Your task to perform on an android device: open wifi settings Image 0: 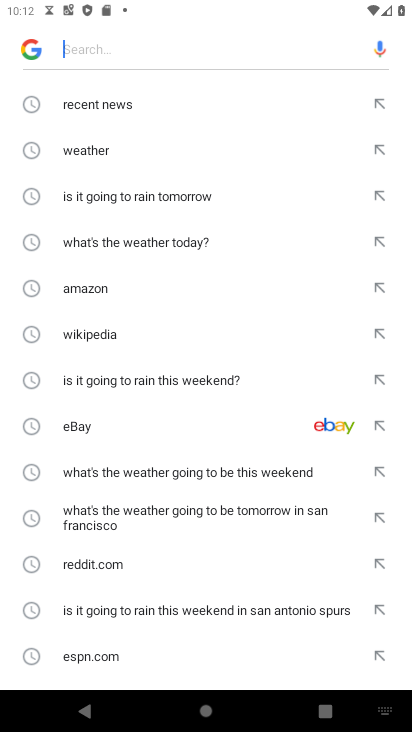
Step 0: press back button
Your task to perform on an android device: open wifi settings Image 1: 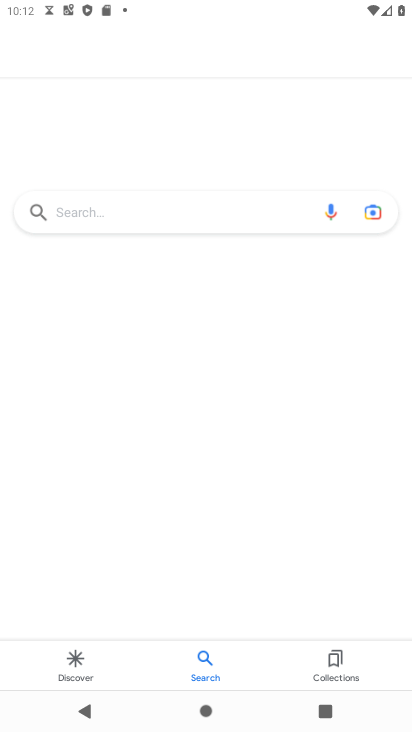
Step 1: press back button
Your task to perform on an android device: open wifi settings Image 2: 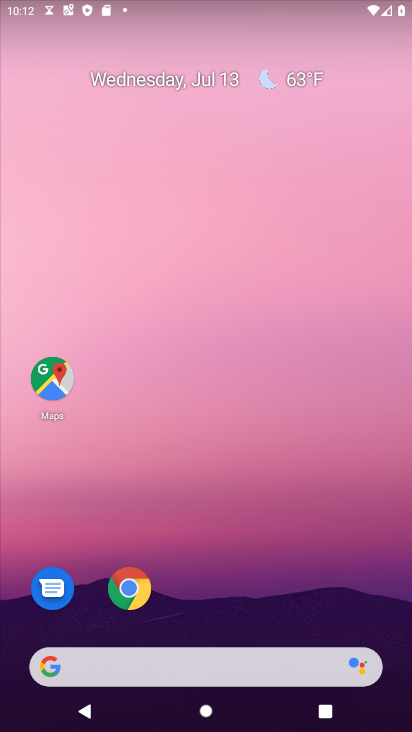
Step 2: drag from (159, 3) to (223, 429)
Your task to perform on an android device: open wifi settings Image 3: 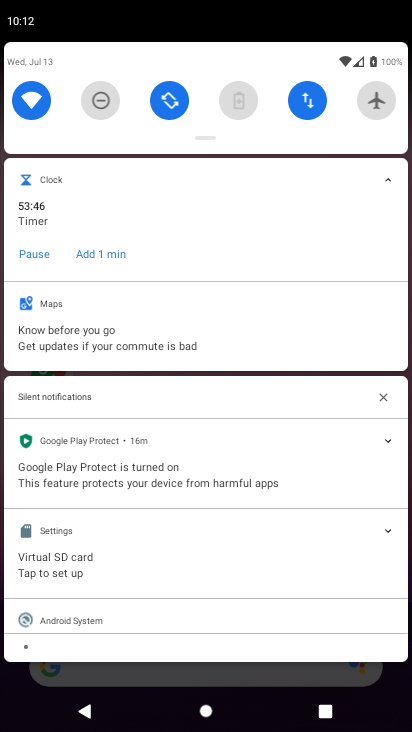
Step 3: click (35, 98)
Your task to perform on an android device: open wifi settings Image 4: 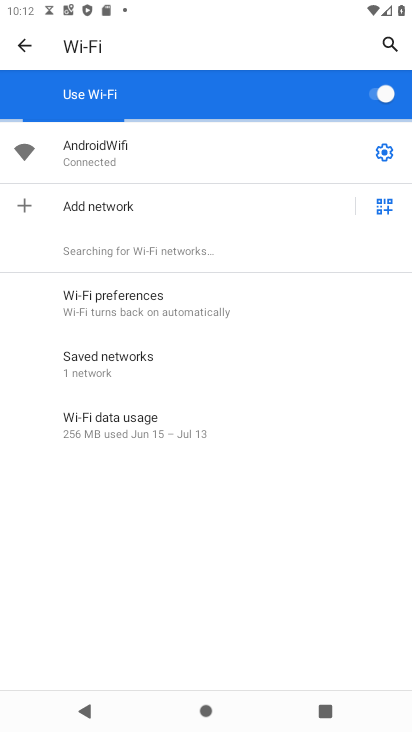
Step 4: click (388, 151)
Your task to perform on an android device: open wifi settings Image 5: 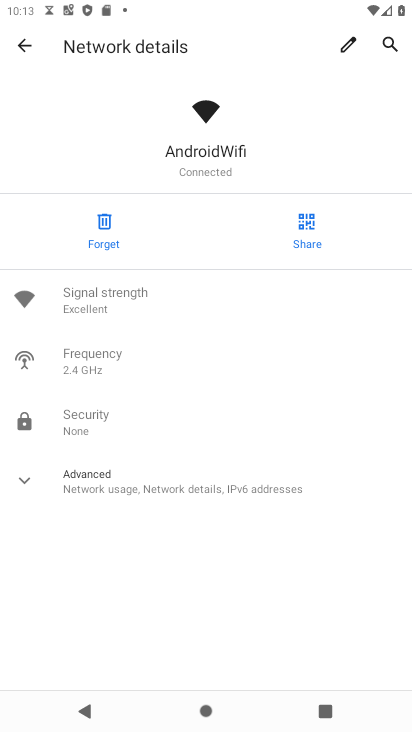
Step 5: task complete